Your task to perform on an android device: snooze an email in the gmail app Image 0: 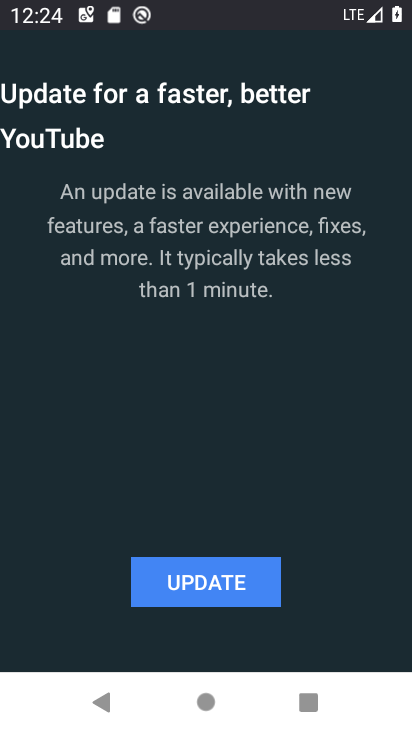
Step 0: press home button
Your task to perform on an android device: snooze an email in the gmail app Image 1: 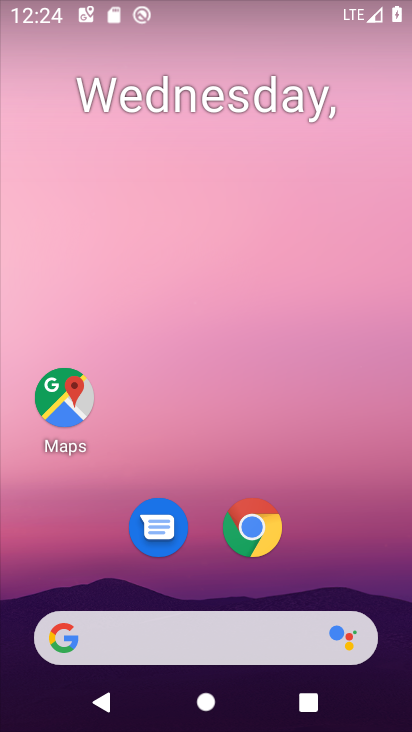
Step 1: drag from (327, 665) to (350, 94)
Your task to perform on an android device: snooze an email in the gmail app Image 2: 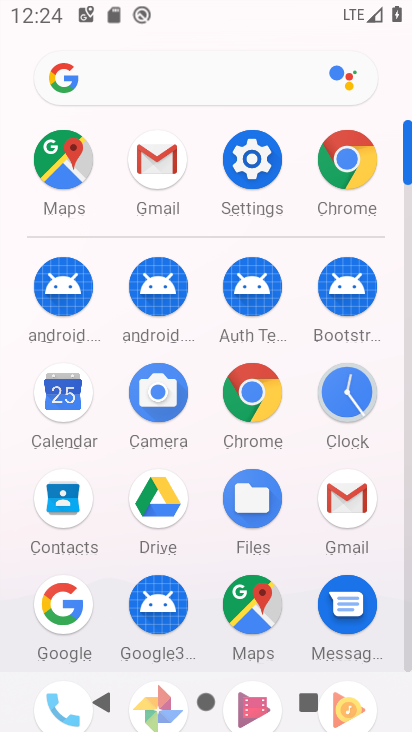
Step 2: click (333, 496)
Your task to perform on an android device: snooze an email in the gmail app Image 3: 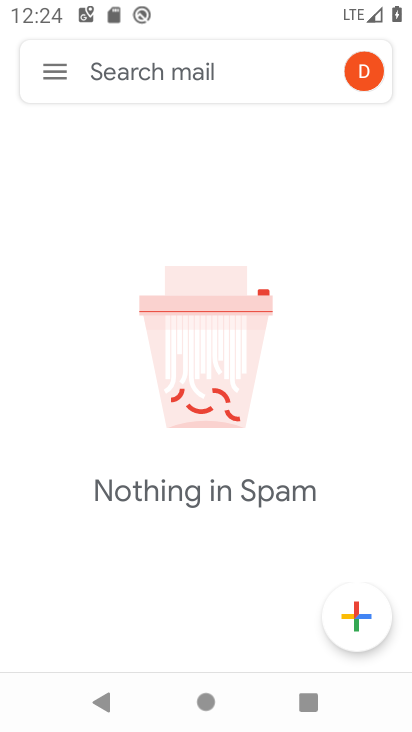
Step 3: click (56, 64)
Your task to perform on an android device: snooze an email in the gmail app Image 4: 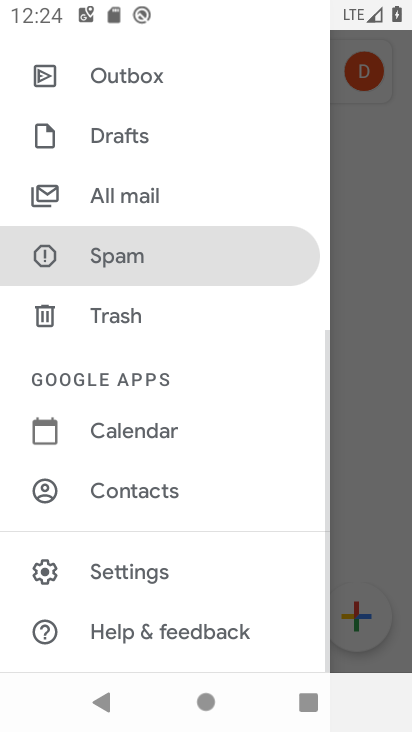
Step 4: drag from (146, 124) to (180, 406)
Your task to perform on an android device: snooze an email in the gmail app Image 5: 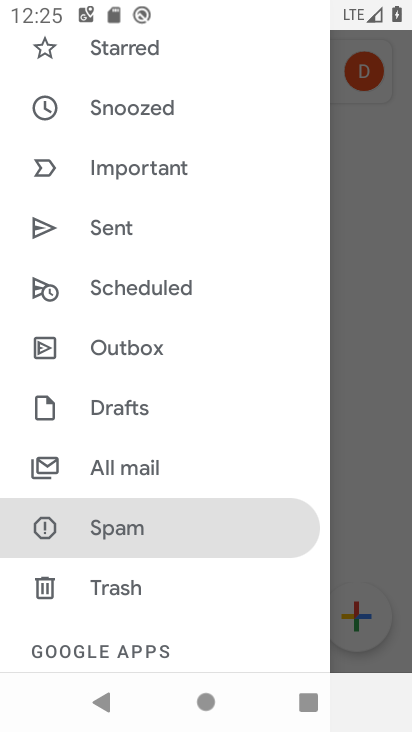
Step 5: click (140, 107)
Your task to perform on an android device: snooze an email in the gmail app Image 6: 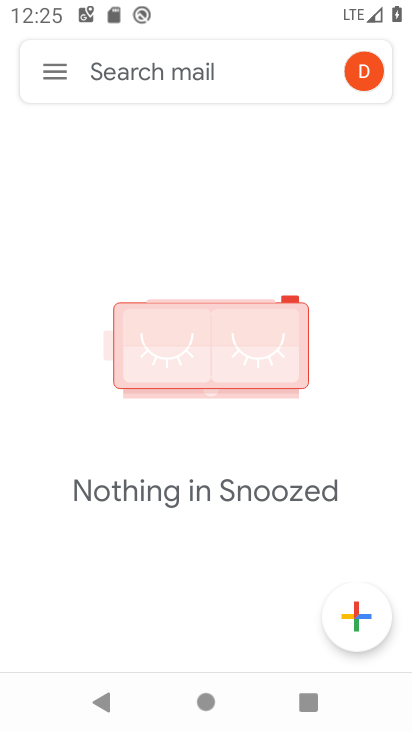
Step 6: task complete